Your task to perform on an android device: search for starred emails in the gmail app Image 0: 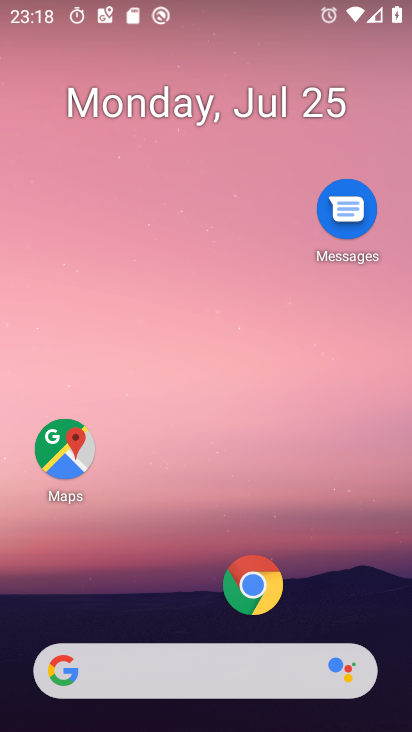
Step 0: press home button
Your task to perform on an android device: search for starred emails in the gmail app Image 1: 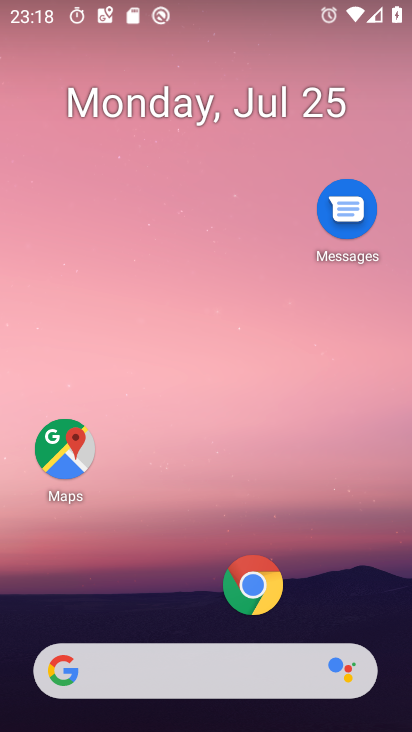
Step 1: drag from (196, 682) to (311, 122)
Your task to perform on an android device: search for starred emails in the gmail app Image 2: 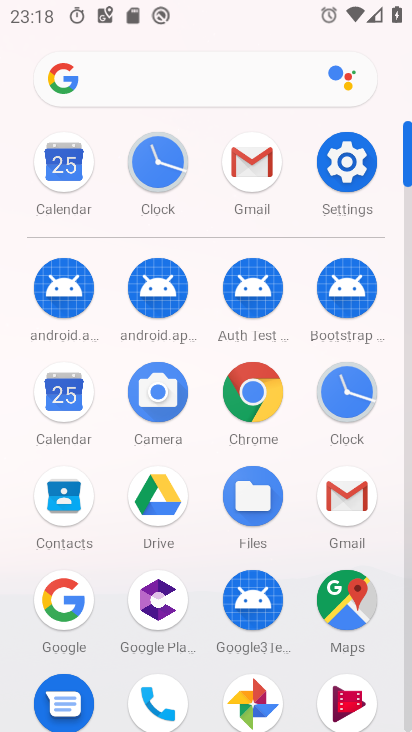
Step 2: click (257, 170)
Your task to perform on an android device: search for starred emails in the gmail app Image 3: 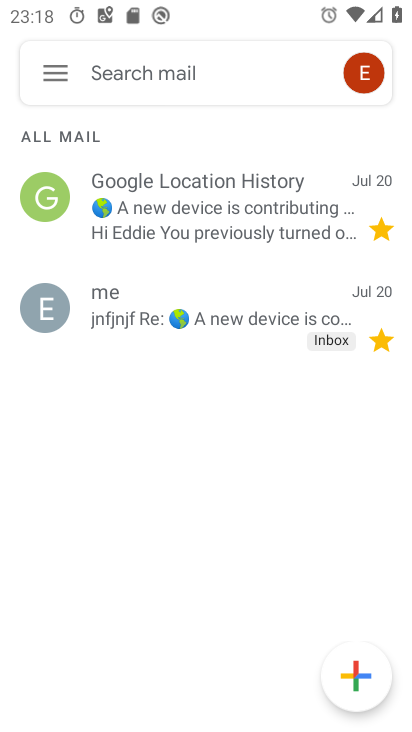
Step 3: click (55, 68)
Your task to perform on an android device: search for starred emails in the gmail app Image 4: 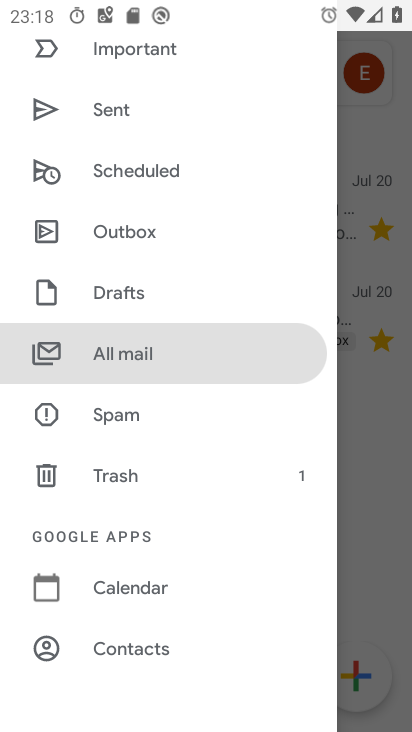
Step 4: drag from (228, 214) to (183, 585)
Your task to perform on an android device: search for starred emails in the gmail app Image 5: 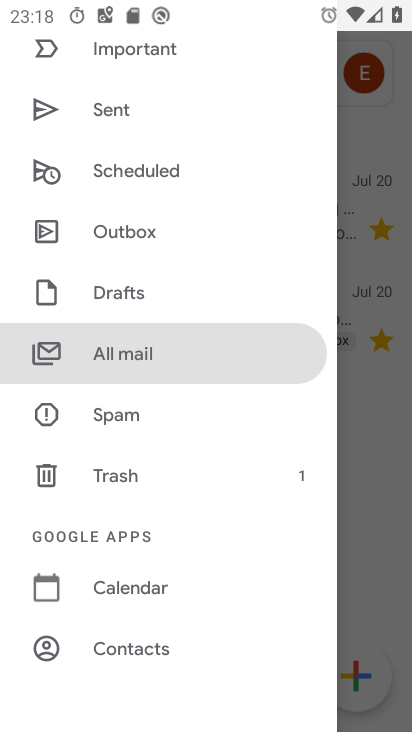
Step 5: drag from (137, 268) to (160, 597)
Your task to perform on an android device: search for starred emails in the gmail app Image 6: 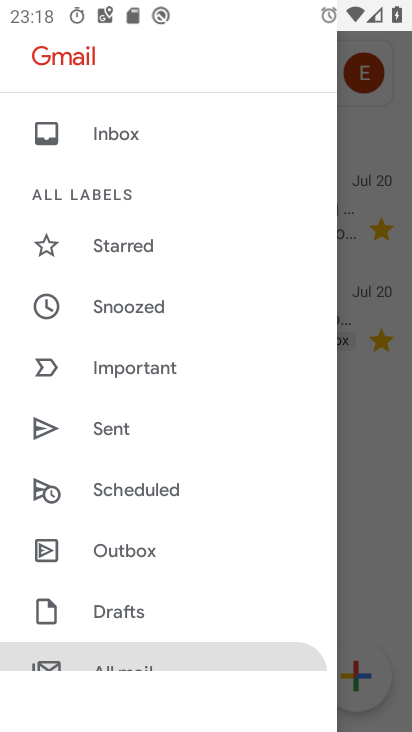
Step 6: click (129, 240)
Your task to perform on an android device: search for starred emails in the gmail app Image 7: 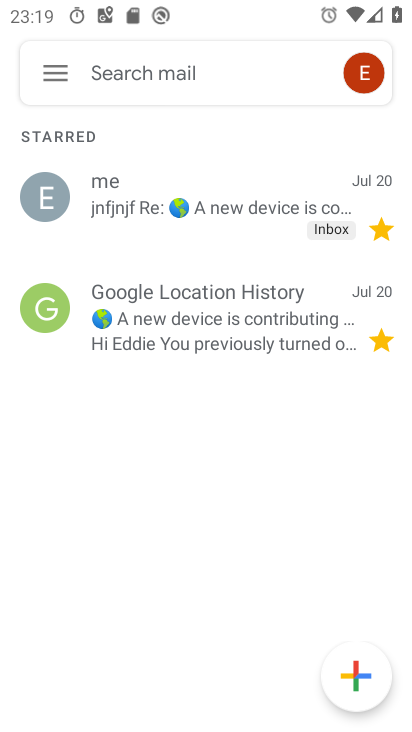
Step 7: task complete